Your task to perform on an android device: Go to calendar. Show me events next week Image 0: 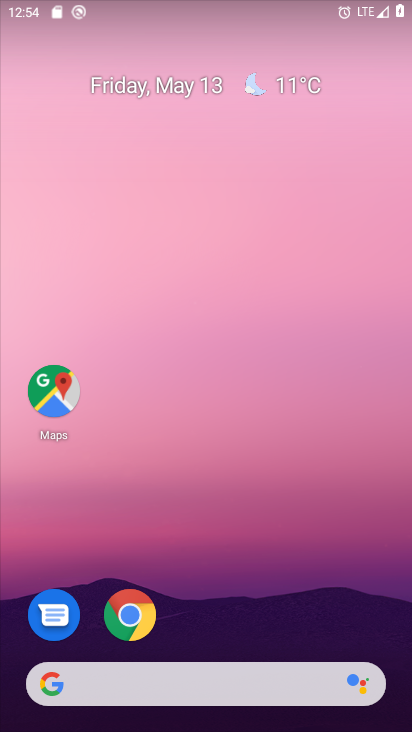
Step 0: drag from (311, 589) to (324, 43)
Your task to perform on an android device: Go to calendar. Show me events next week Image 1: 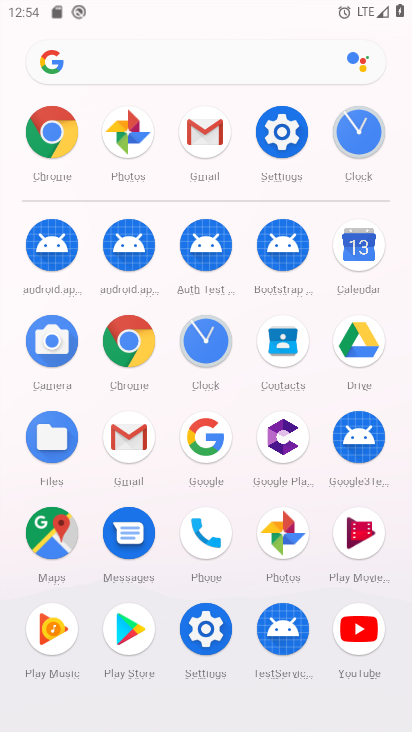
Step 1: click (347, 244)
Your task to perform on an android device: Go to calendar. Show me events next week Image 2: 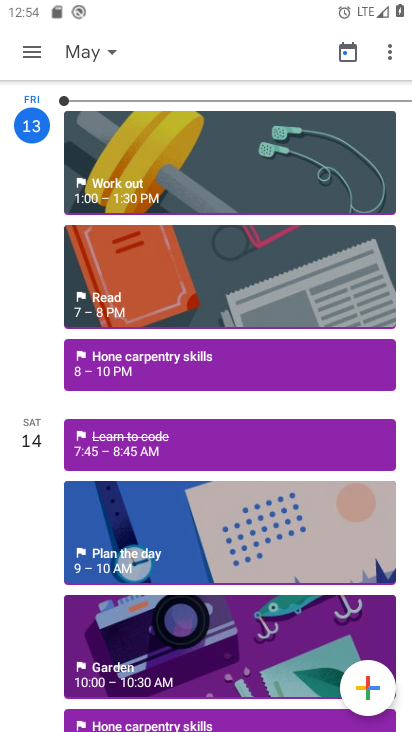
Step 2: click (33, 46)
Your task to perform on an android device: Go to calendar. Show me events next week Image 3: 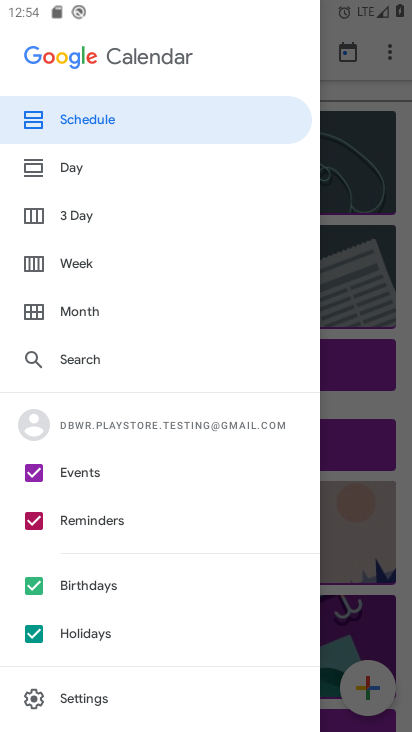
Step 3: click (39, 256)
Your task to perform on an android device: Go to calendar. Show me events next week Image 4: 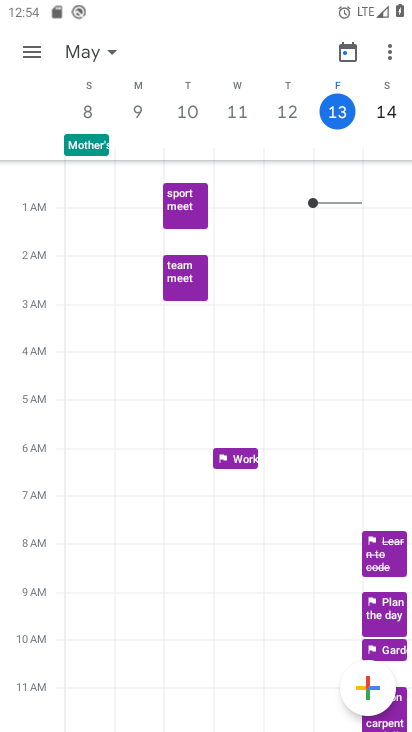
Step 4: task complete